Your task to perform on an android device: Go to settings Image 0: 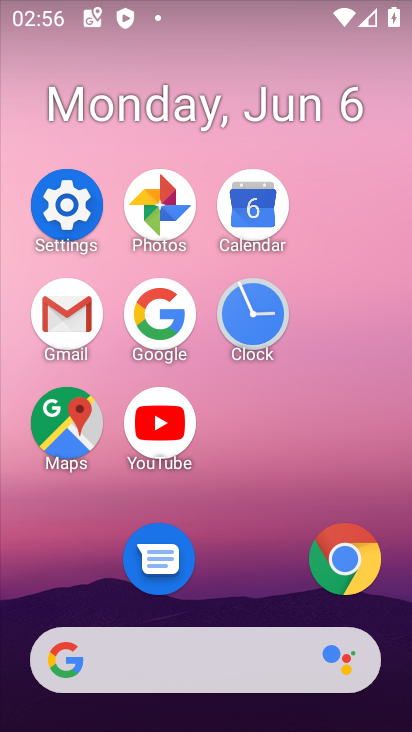
Step 0: click (88, 187)
Your task to perform on an android device: Go to settings Image 1: 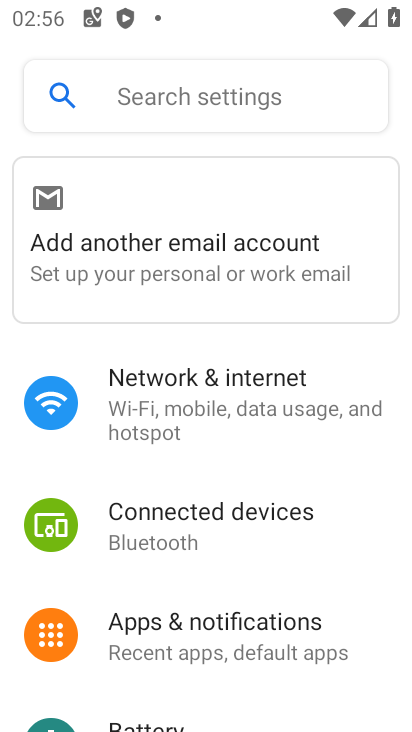
Step 1: task complete